Your task to perform on an android device: turn on sleep mode Image 0: 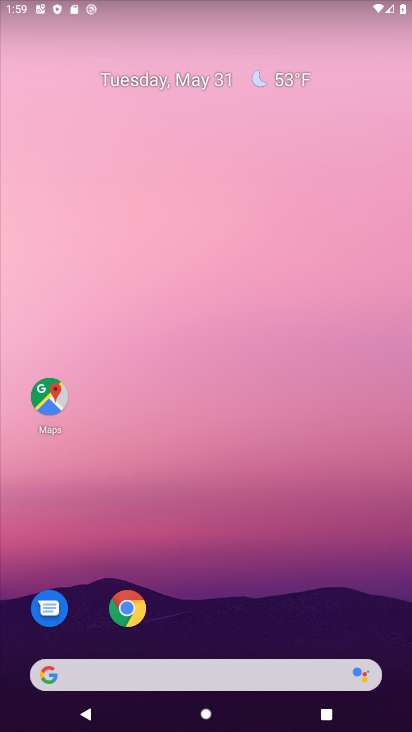
Step 0: drag from (302, 646) to (325, 152)
Your task to perform on an android device: turn on sleep mode Image 1: 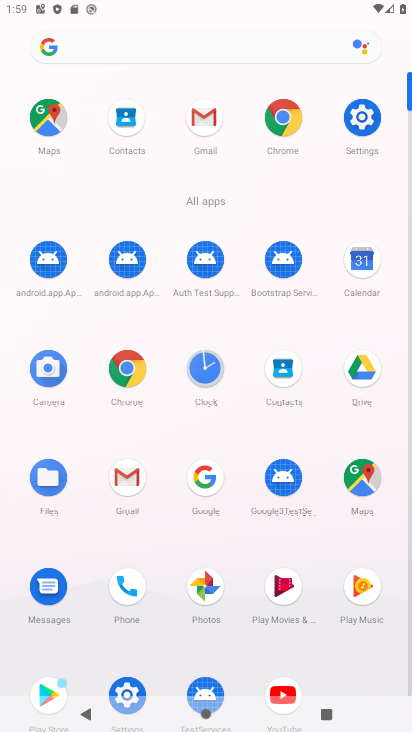
Step 1: click (353, 130)
Your task to perform on an android device: turn on sleep mode Image 2: 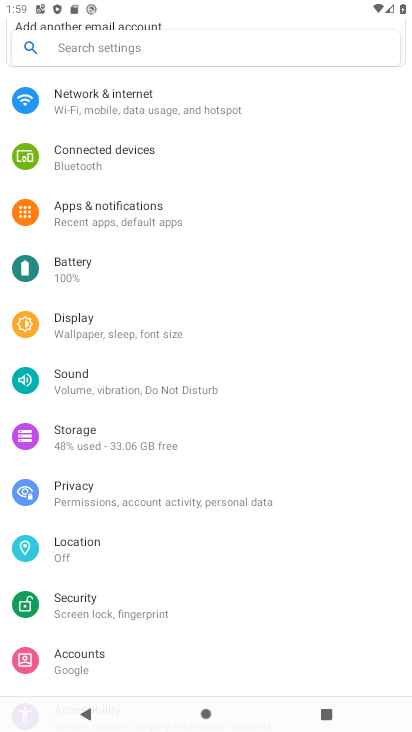
Step 2: click (109, 328)
Your task to perform on an android device: turn on sleep mode Image 3: 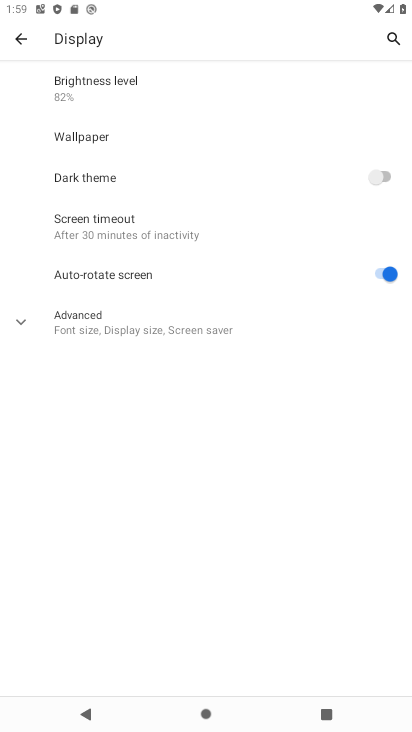
Step 3: task complete